Your task to perform on an android device: search for starred emails in the gmail app Image 0: 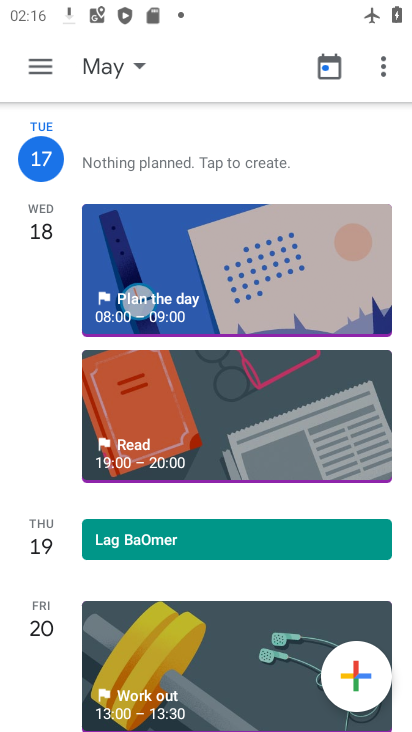
Step 0: press home button
Your task to perform on an android device: search for starred emails in the gmail app Image 1: 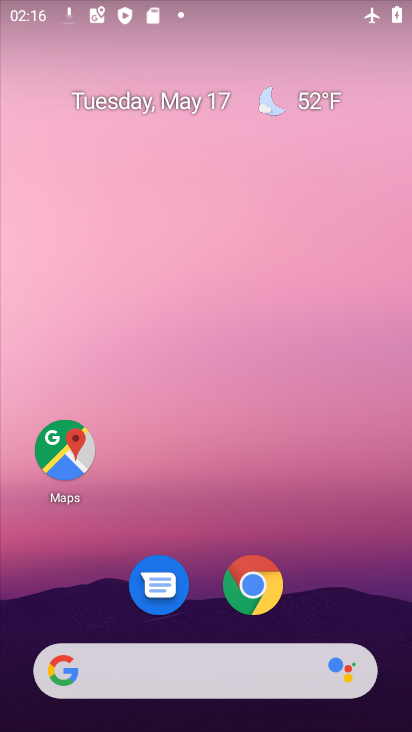
Step 1: drag from (176, 476) to (177, 65)
Your task to perform on an android device: search for starred emails in the gmail app Image 2: 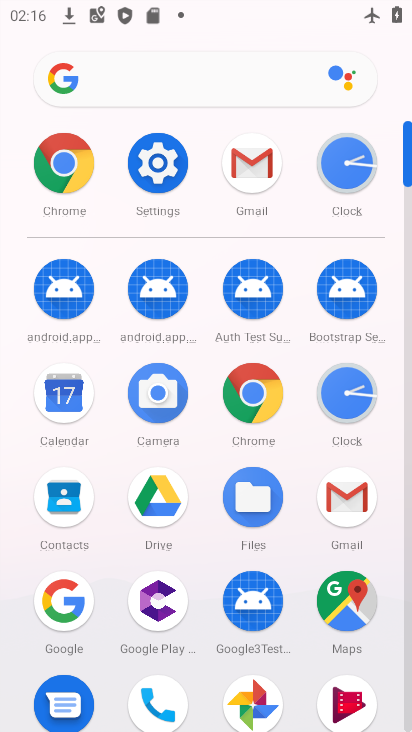
Step 2: click (238, 158)
Your task to perform on an android device: search for starred emails in the gmail app Image 3: 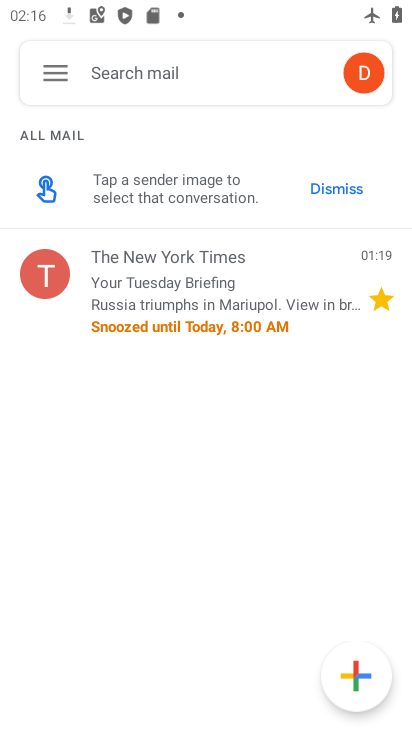
Step 3: click (54, 61)
Your task to perform on an android device: search for starred emails in the gmail app Image 4: 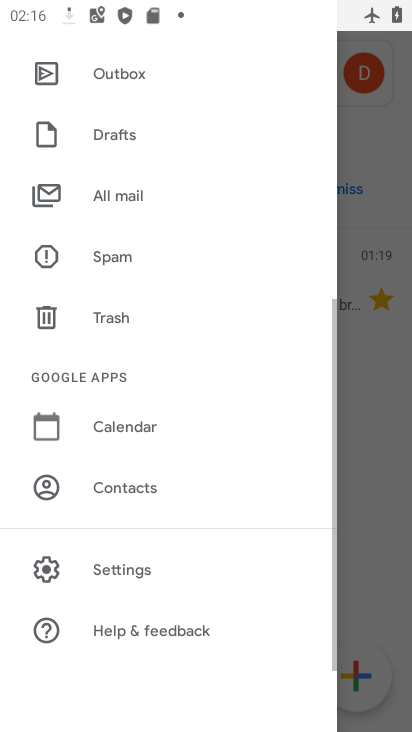
Step 4: drag from (154, 197) to (187, 581)
Your task to perform on an android device: search for starred emails in the gmail app Image 5: 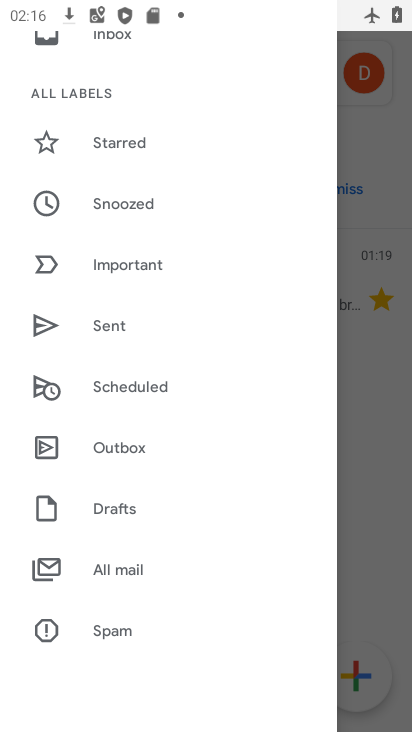
Step 5: click (148, 137)
Your task to perform on an android device: search for starred emails in the gmail app Image 6: 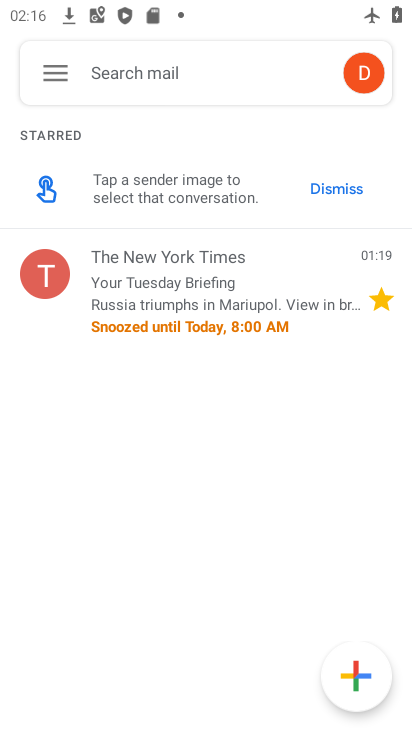
Step 6: task complete